Your task to perform on an android device: open the mobile data screen to see how much data has been used Image 0: 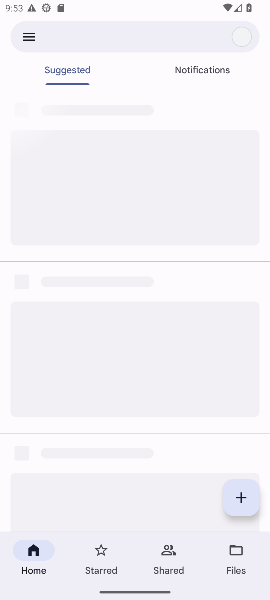
Step 0: drag from (155, 8) to (139, 476)
Your task to perform on an android device: open the mobile data screen to see how much data has been used Image 1: 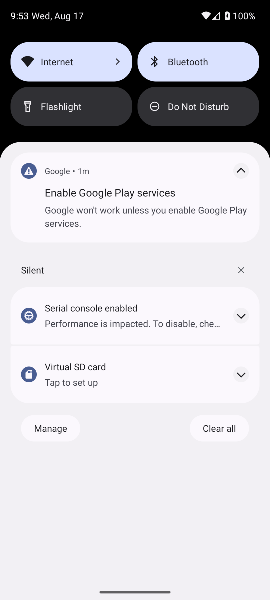
Step 1: click (58, 64)
Your task to perform on an android device: open the mobile data screen to see how much data has been used Image 2: 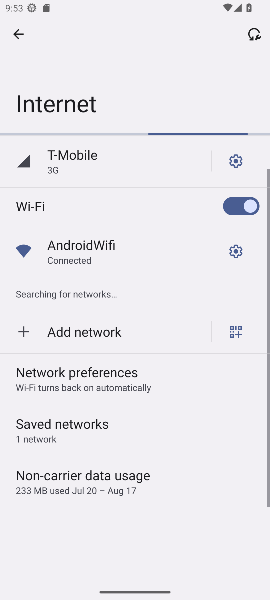
Step 2: task complete